Your task to perform on an android device: toggle notification dots Image 0: 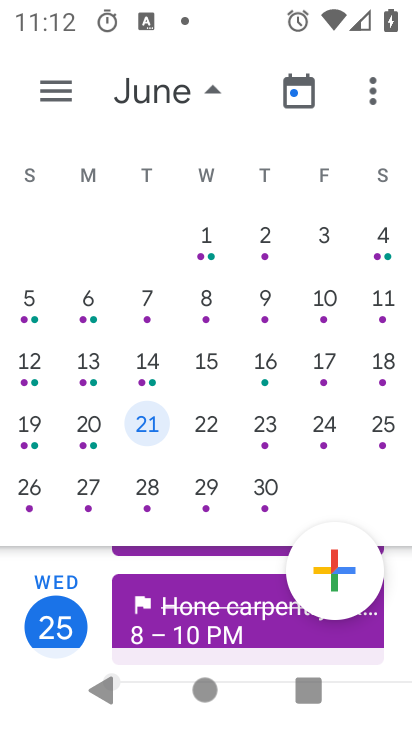
Step 0: press home button
Your task to perform on an android device: toggle notification dots Image 1: 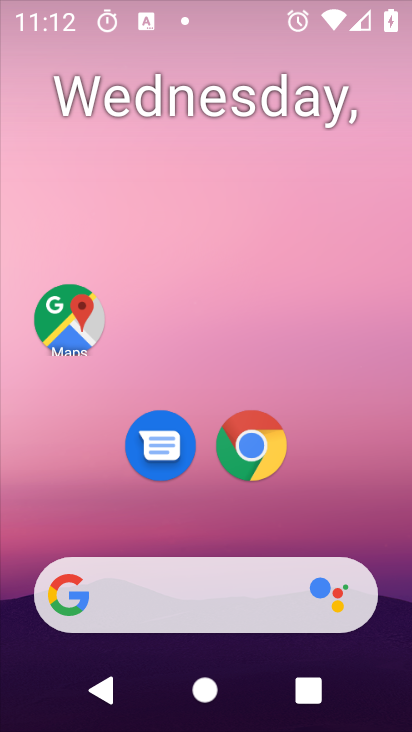
Step 1: drag from (371, 504) to (380, 10)
Your task to perform on an android device: toggle notification dots Image 2: 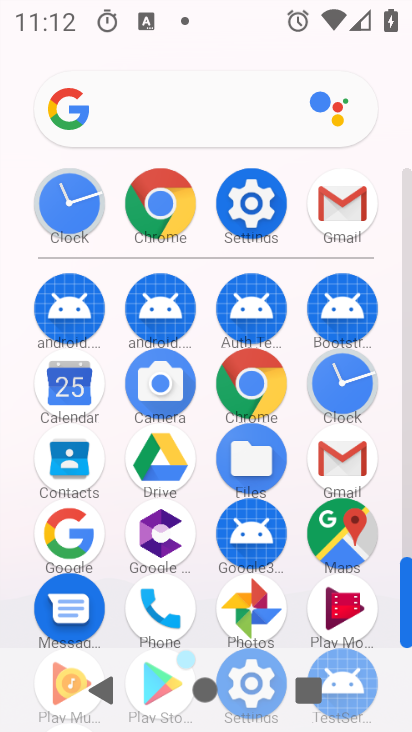
Step 2: click (238, 177)
Your task to perform on an android device: toggle notification dots Image 3: 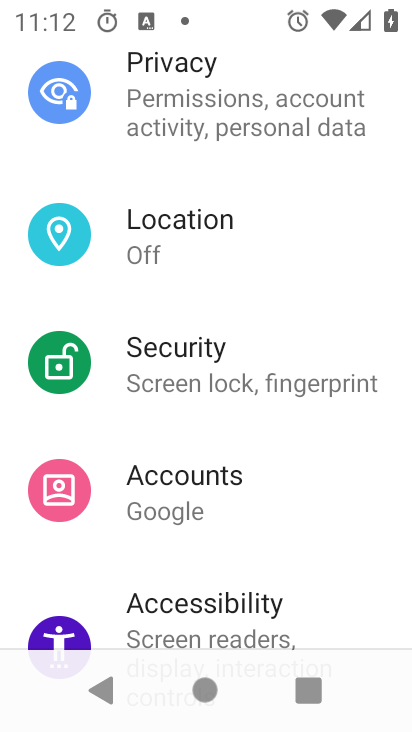
Step 3: drag from (238, 177) to (276, 570)
Your task to perform on an android device: toggle notification dots Image 4: 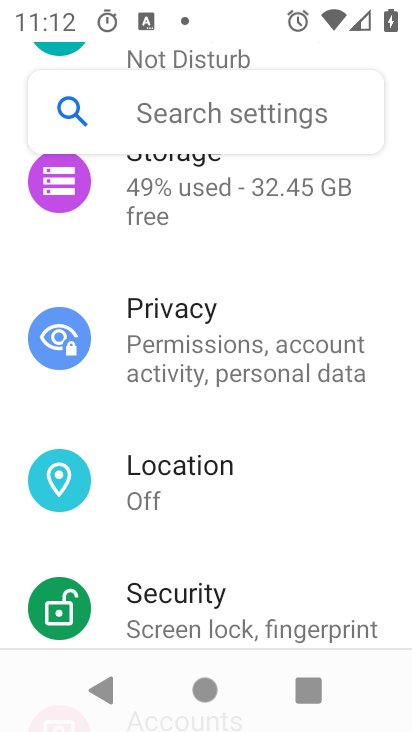
Step 4: drag from (183, 181) to (234, 578)
Your task to perform on an android device: toggle notification dots Image 5: 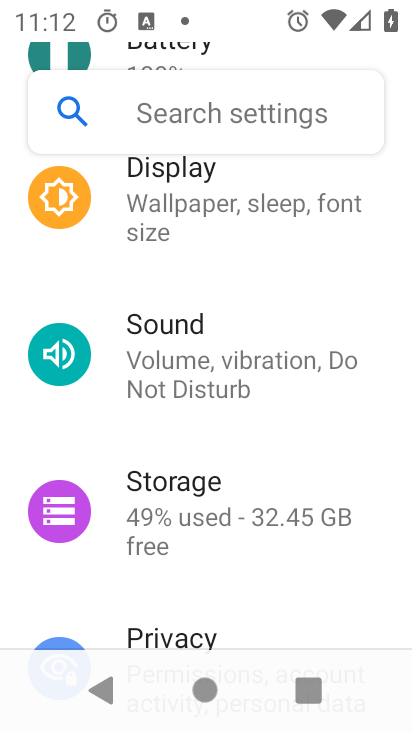
Step 5: drag from (182, 209) to (223, 588)
Your task to perform on an android device: toggle notification dots Image 6: 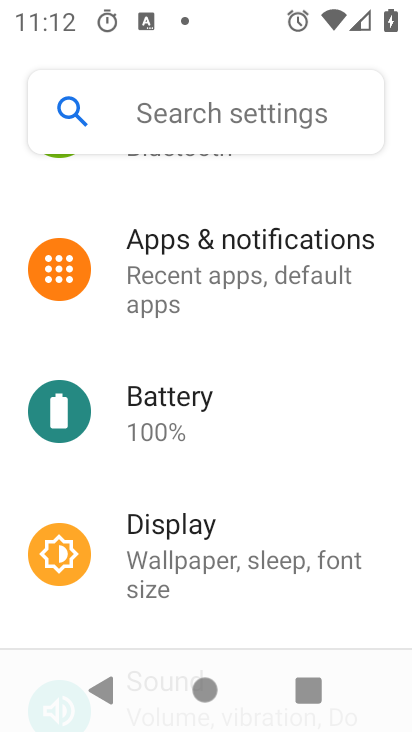
Step 6: click (254, 282)
Your task to perform on an android device: toggle notification dots Image 7: 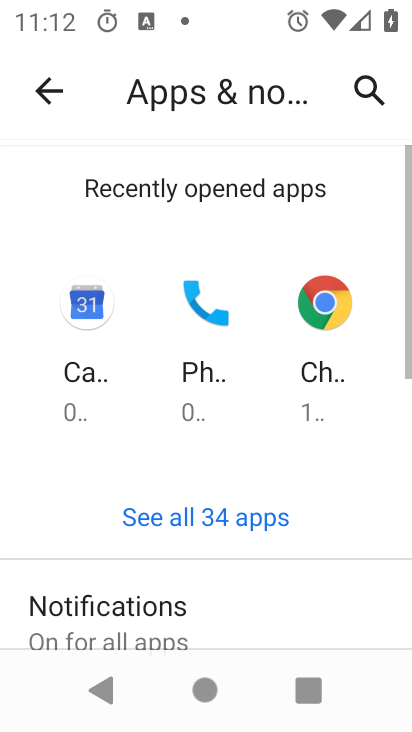
Step 7: click (169, 615)
Your task to perform on an android device: toggle notification dots Image 8: 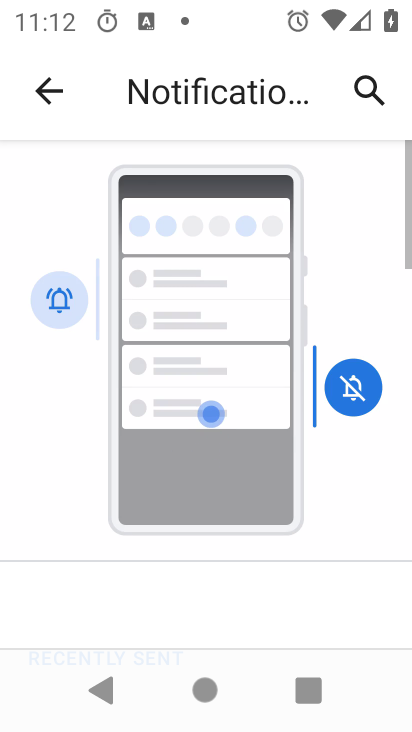
Step 8: drag from (171, 580) to (152, 229)
Your task to perform on an android device: toggle notification dots Image 9: 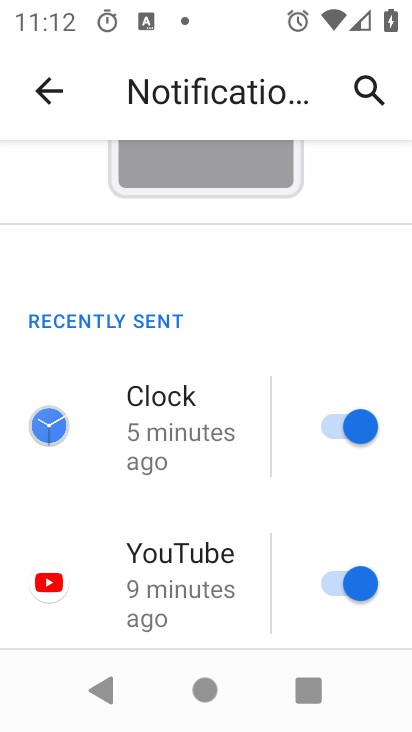
Step 9: drag from (231, 521) to (220, 175)
Your task to perform on an android device: toggle notification dots Image 10: 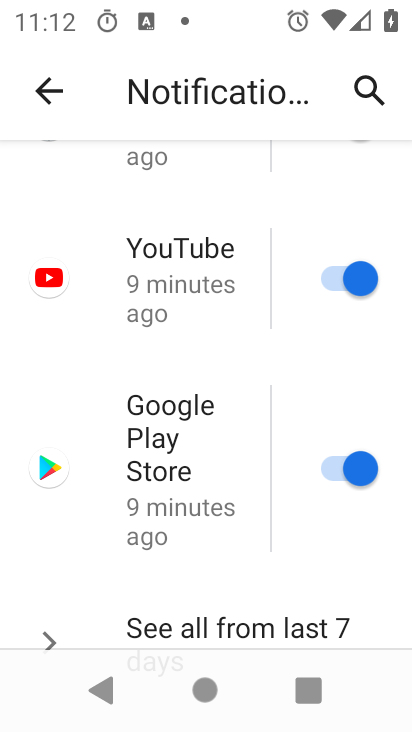
Step 10: drag from (277, 509) to (280, 147)
Your task to perform on an android device: toggle notification dots Image 11: 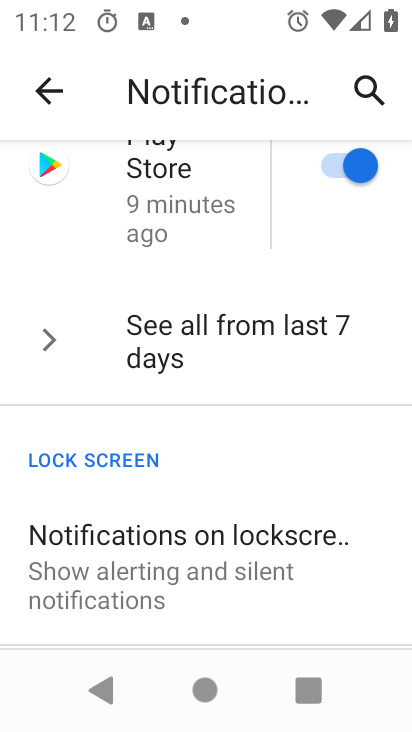
Step 11: drag from (256, 542) to (268, 217)
Your task to perform on an android device: toggle notification dots Image 12: 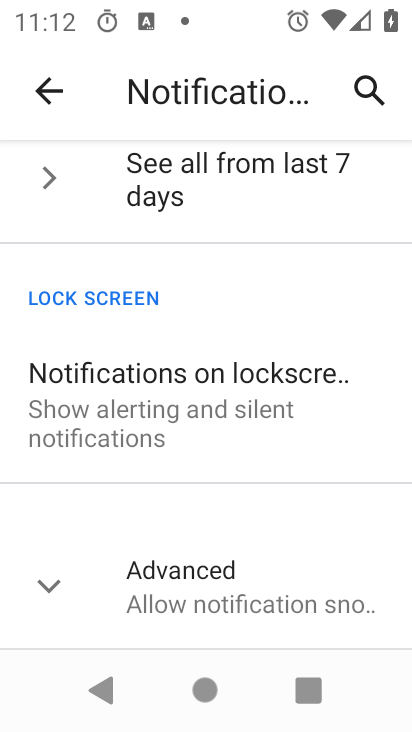
Step 12: click (236, 578)
Your task to perform on an android device: toggle notification dots Image 13: 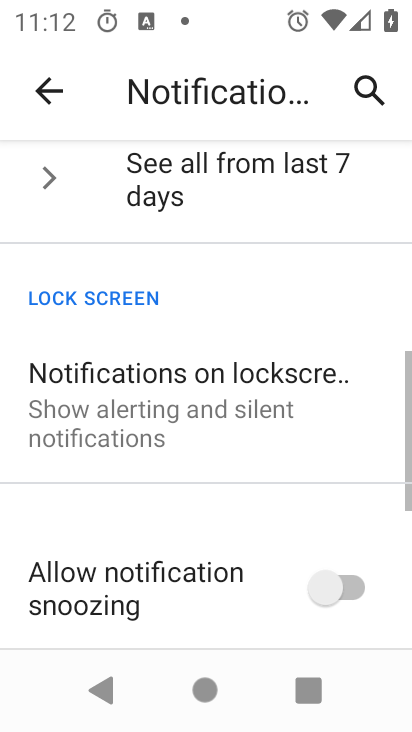
Step 13: drag from (236, 579) to (253, 262)
Your task to perform on an android device: toggle notification dots Image 14: 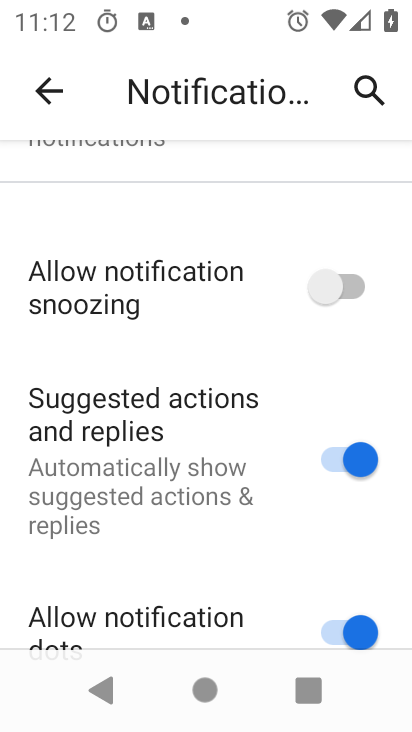
Step 14: drag from (272, 515) to (303, 194)
Your task to perform on an android device: toggle notification dots Image 15: 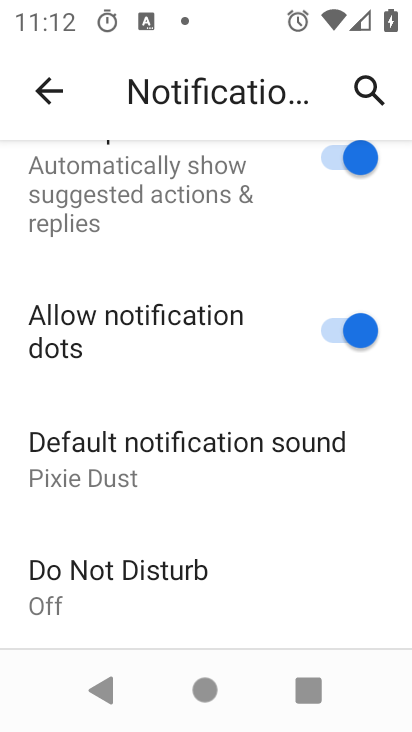
Step 15: click (343, 342)
Your task to perform on an android device: toggle notification dots Image 16: 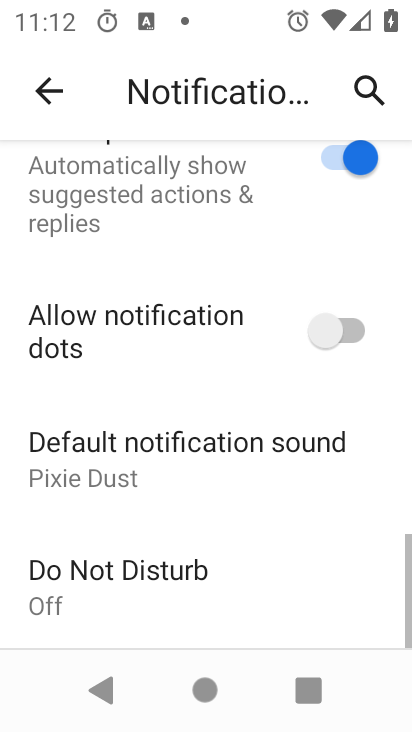
Step 16: task complete